Your task to perform on an android device: install app "Spotify: Music and Podcasts" Image 0: 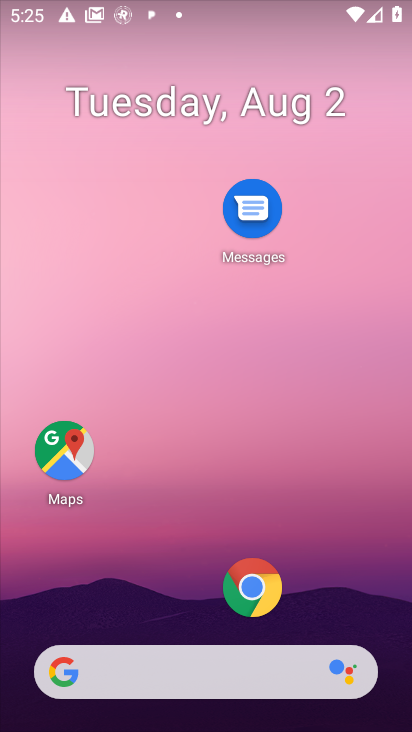
Step 0: drag from (190, 601) to (224, 276)
Your task to perform on an android device: install app "Spotify: Music and Podcasts" Image 1: 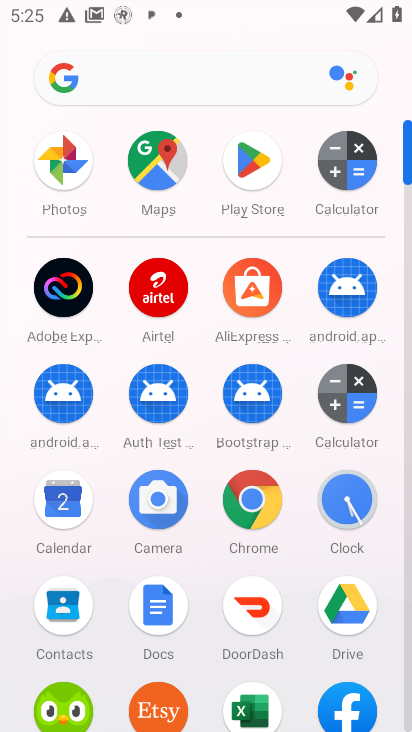
Step 1: click (248, 174)
Your task to perform on an android device: install app "Spotify: Music and Podcasts" Image 2: 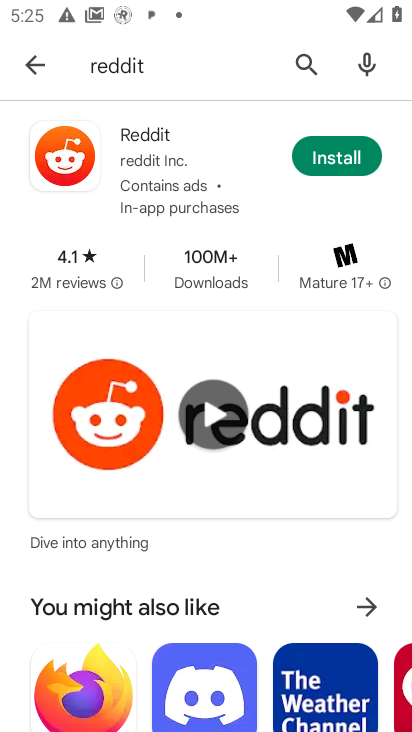
Step 2: click (309, 64)
Your task to perform on an android device: install app "Spotify: Music and Podcasts" Image 3: 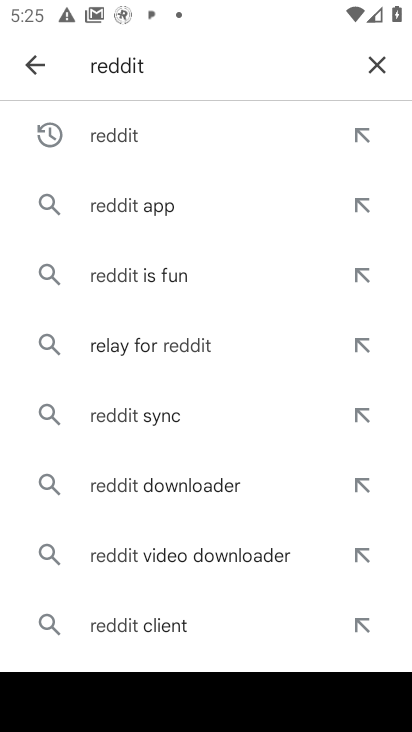
Step 3: click (368, 63)
Your task to perform on an android device: install app "Spotify: Music and Podcasts" Image 4: 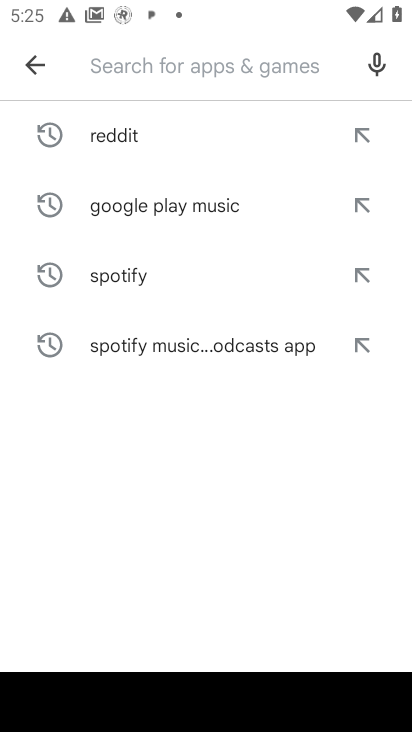
Step 4: type "Spotify: Music and Podcasts"
Your task to perform on an android device: install app "Spotify: Music and Podcasts" Image 5: 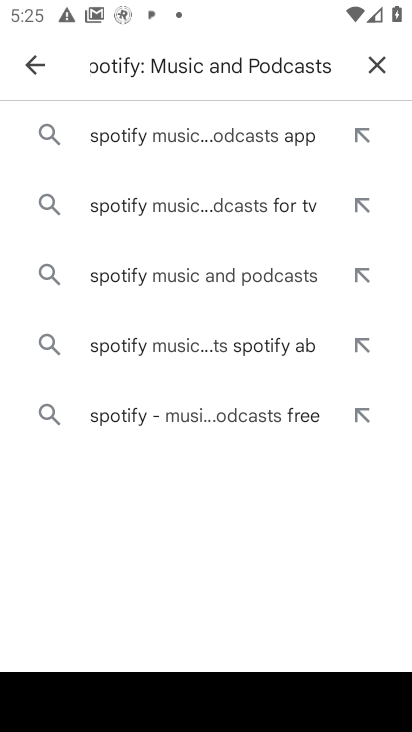
Step 5: click (172, 147)
Your task to perform on an android device: install app "Spotify: Music and Podcasts" Image 6: 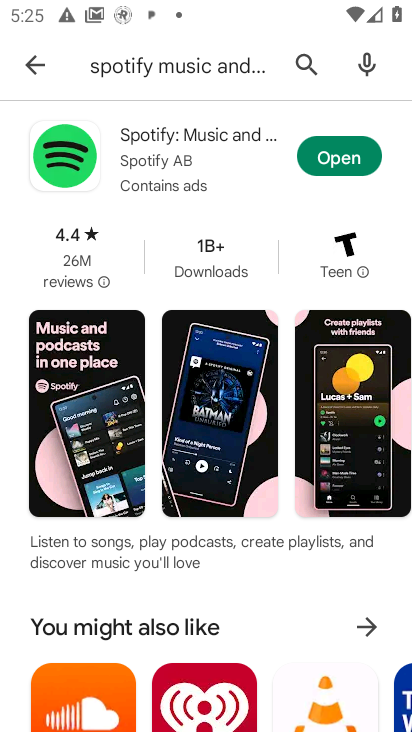
Step 6: task complete